Your task to perform on an android device: Open notification settings Image 0: 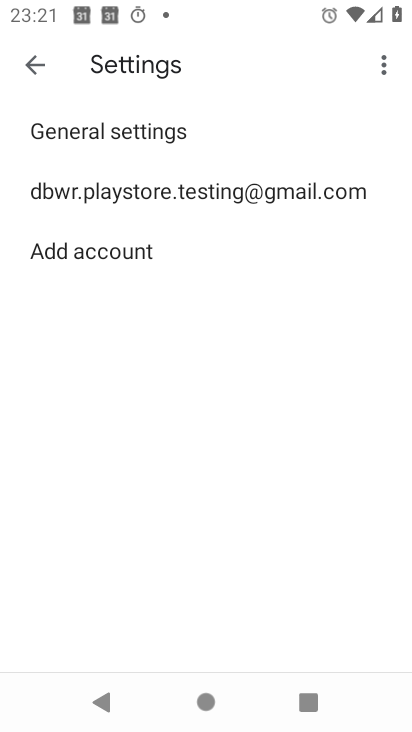
Step 0: press home button
Your task to perform on an android device: Open notification settings Image 1: 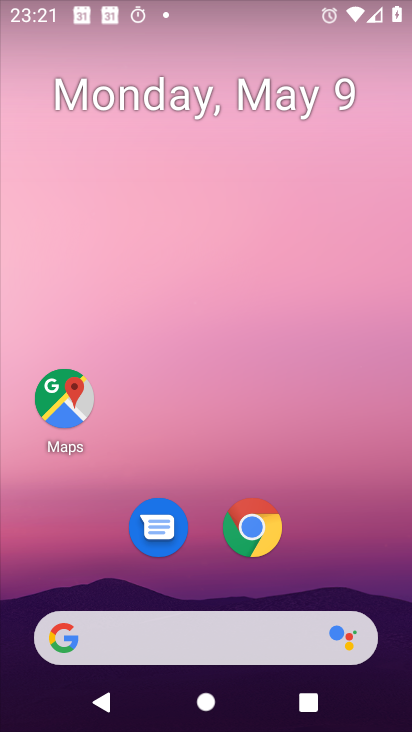
Step 1: drag from (216, 573) to (243, 109)
Your task to perform on an android device: Open notification settings Image 2: 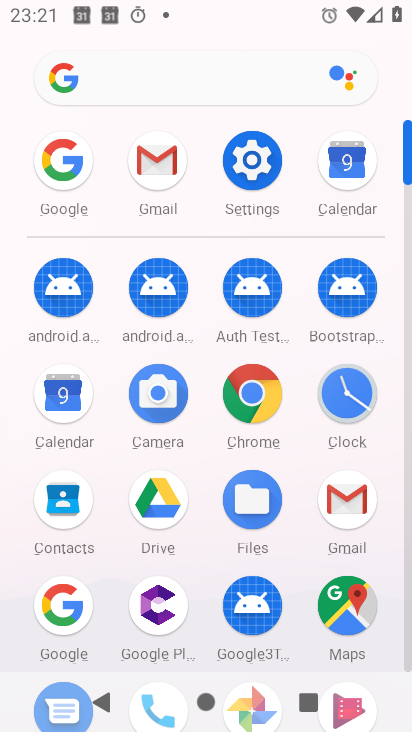
Step 2: drag from (204, 608) to (226, 483)
Your task to perform on an android device: Open notification settings Image 3: 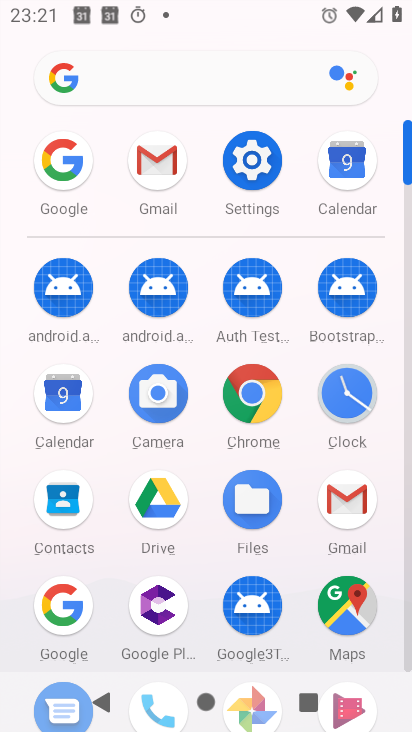
Step 3: click (256, 160)
Your task to perform on an android device: Open notification settings Image 4: 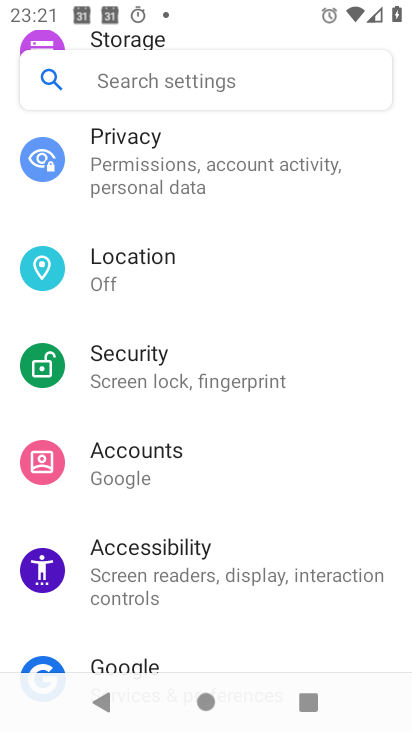
Step 4: drag from (182, 204) to (240, 706)
Your task to perform on an android device: Open notification settings Image 5: 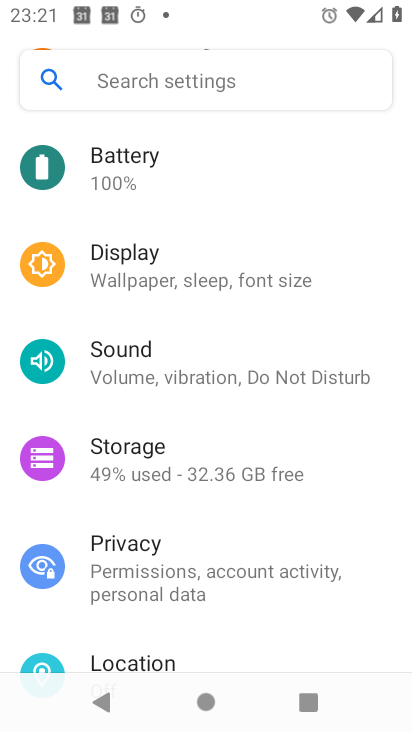
Step 5: drag from (156, 259) to (248, 540)
Your task to perform on an android device: Open notification settings Image 6: 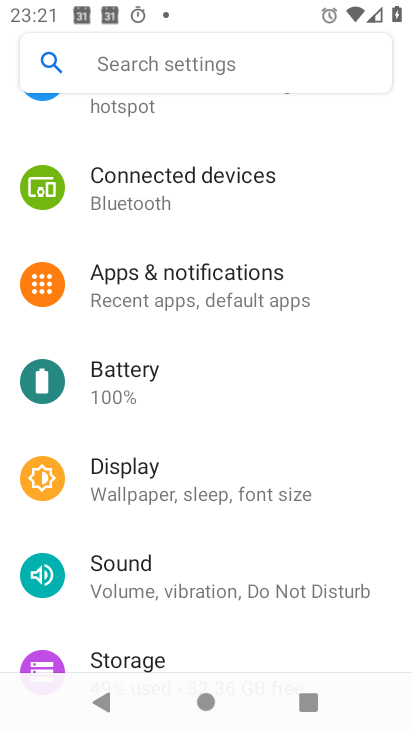
Step 6: click (187, 284)
Your task to perform on an android device: Open notification settings Image 7: 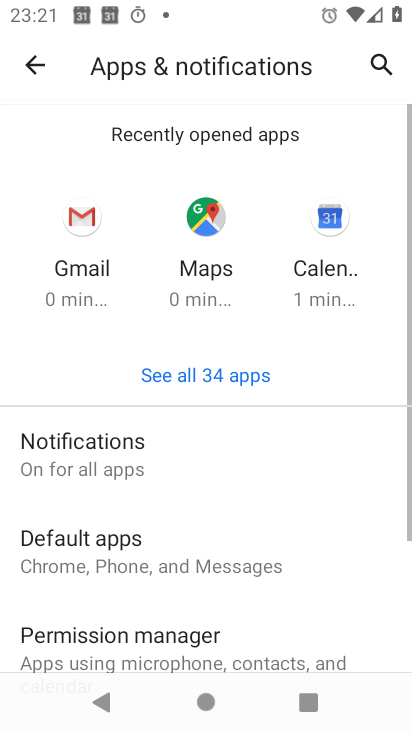
Step 7: click (119, 458)
Your task to perform on an android device: Open notification settings Image 8: 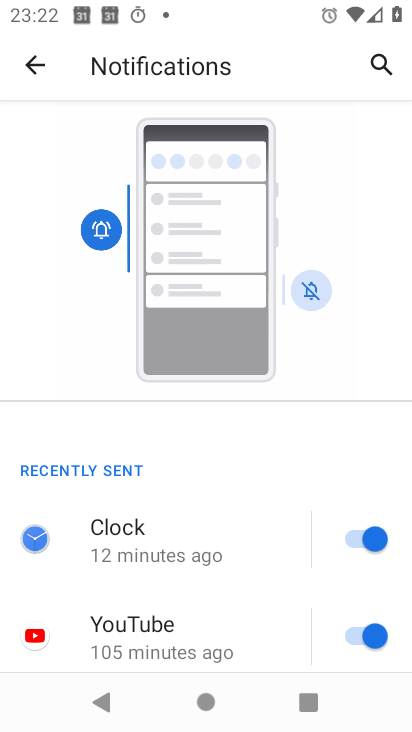
Step 8: task complete